Your task to perform on an android device: delete location history Image 0: 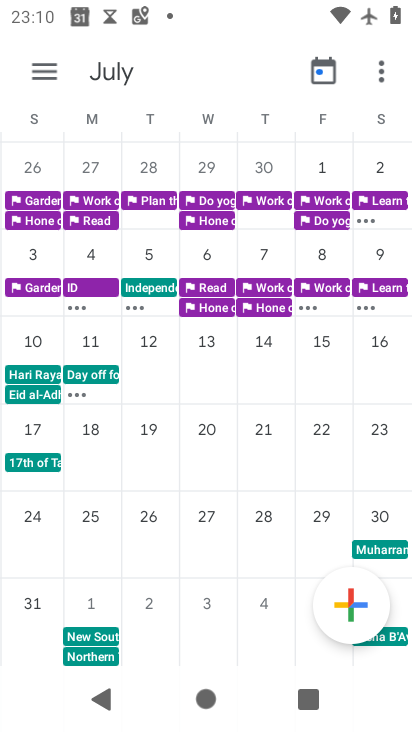
Step 0: press home button
Your task to perform on an android device: delete location history Image 1: 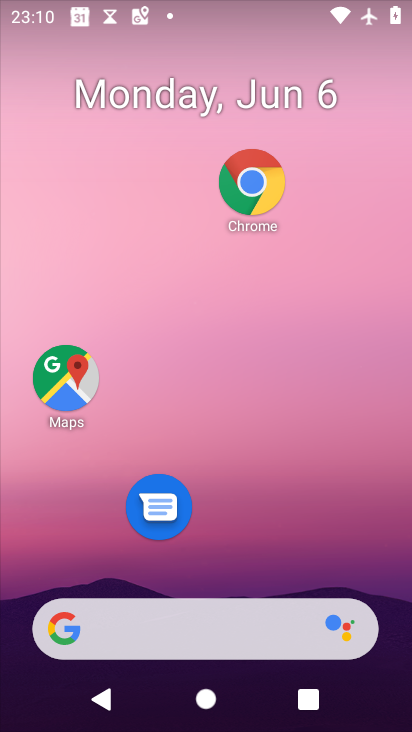
Step 1: click (249, 178)
Your task to perform on an android device: delete location history Image 2: 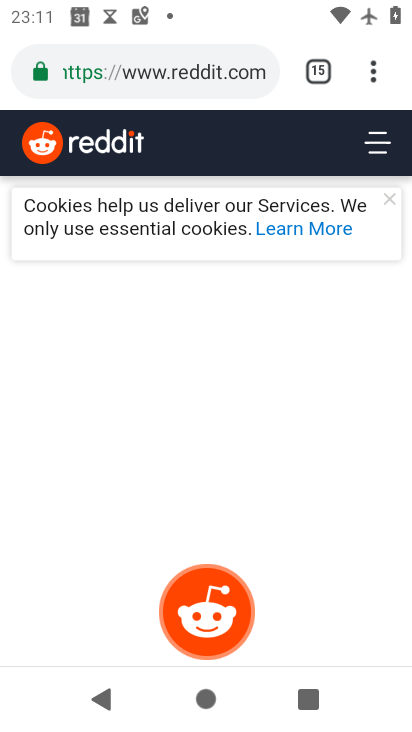
Step 2: press home button
Your task to perform on an android device: delete location history Image 3: 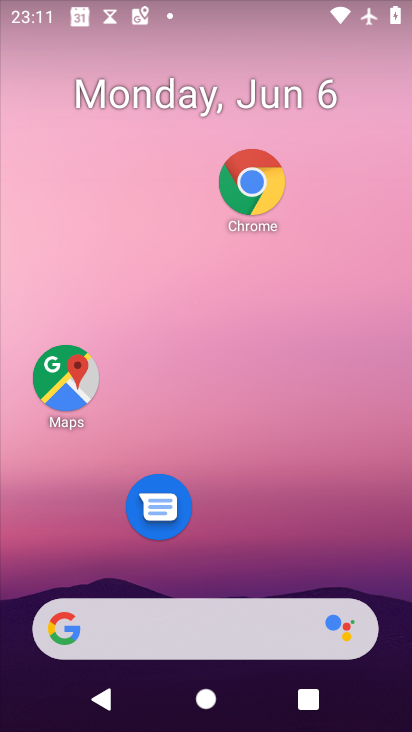
Step 3: click (72, 387)
Your task to perform on an android device: delete location history Image 4: 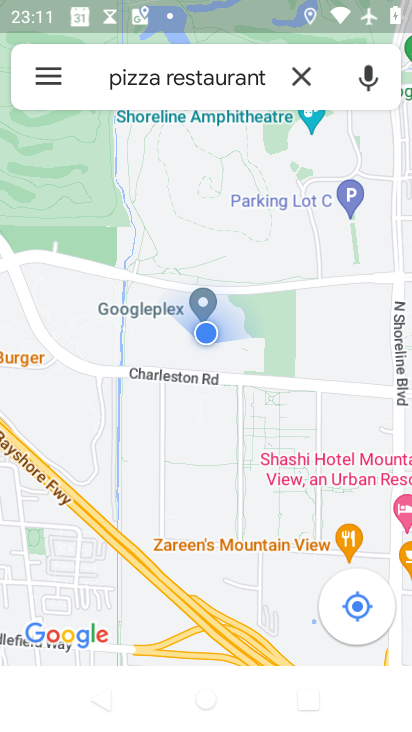
Step 4: click (301, 76)
Your task to perform on an android device: delete location history Image 5: 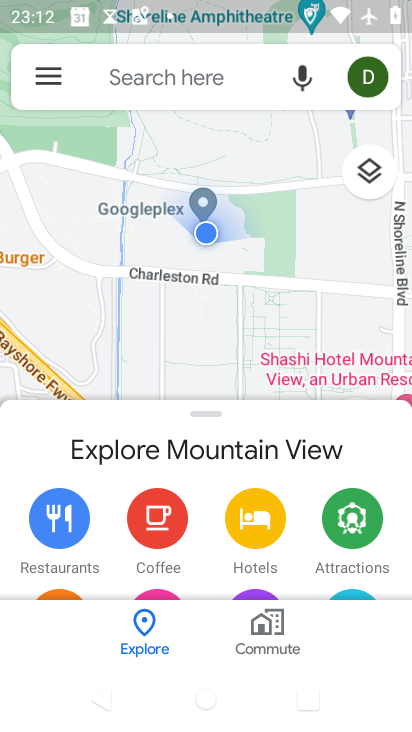
Step 5: click (46, 77)
Your task to perform on an android device: delete location history Image 6: 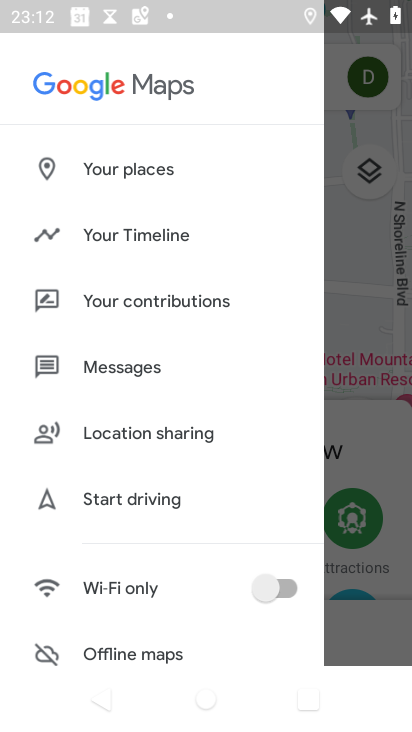
Step 6: click (127, 210)
Your task to perform on an android device: delete location history Image 7: 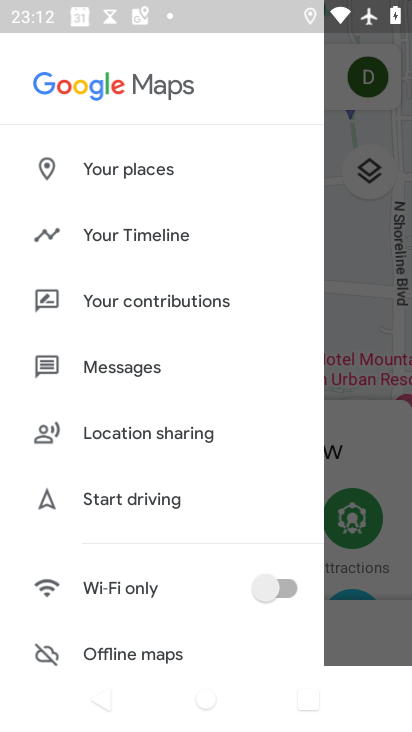
Step 7: click (180, 230)
Your task to perform on an android device: delete location history Image 8: 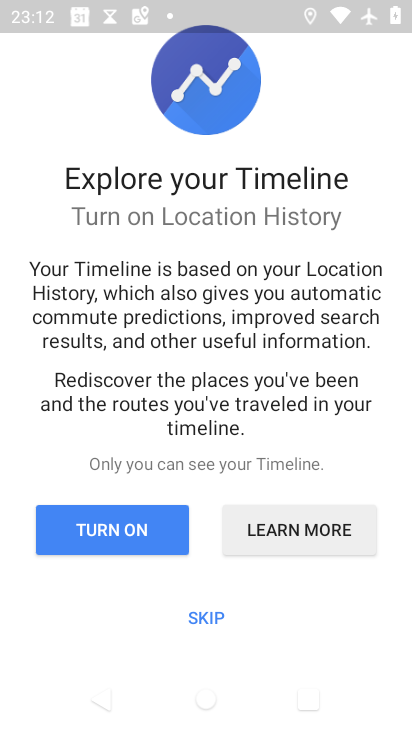
Step 8: click (196, 617)
Your task to perform on an android device: delete location history Image 9: 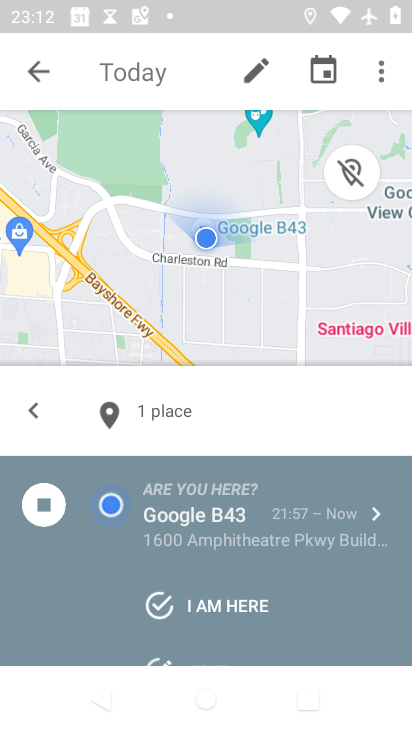
Step 9: click (380, 71)
Your task to perform on an android device: delete location history Image 10: 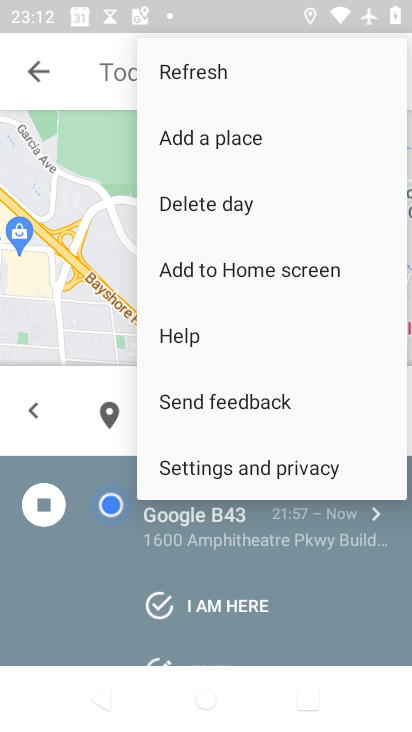
Step 10: click (219, 462)
Your task to perform on an android device: delete location history Image 11: 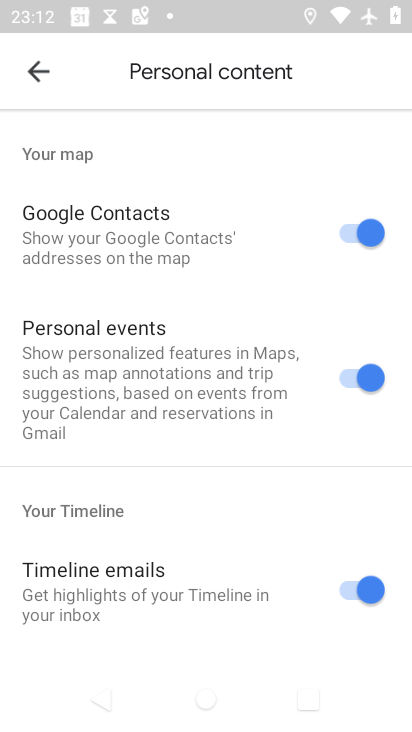
Step 11: drag from (142, 539) to (204, 209)
Your task to perform on an android device: delete location history Image 12: 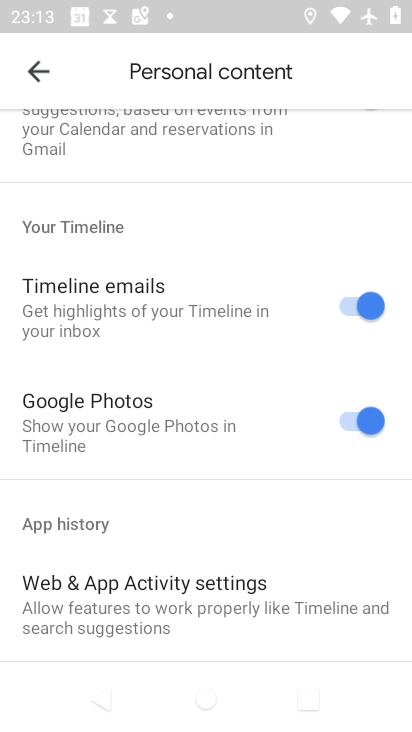
Step 12: drag from (179, 548) to (228, 228)
Your task to perform on an android device: delete location history Image 13: 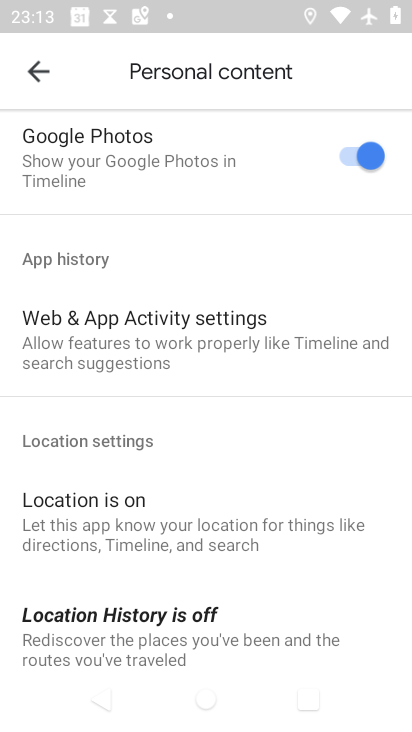
Step 13: drag from (266, 439) to (351, 345)
Your task to perform on an android device: delete location history Image 14: 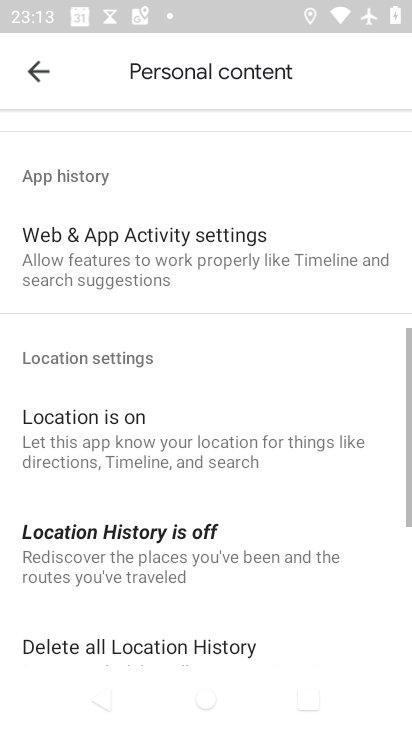
Step 14: drag from (206, 586) to (222, 298)
Your task to perform on an android device: delete location history Image 15: 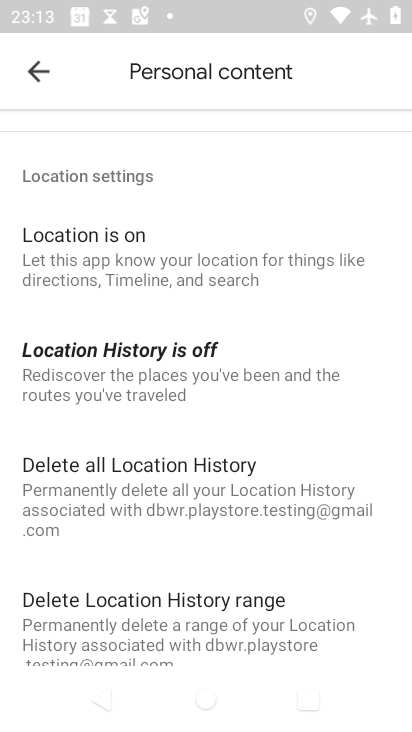
Step 15: click (160, 482)
Your task to perform on an android device: delete location history Image 16: 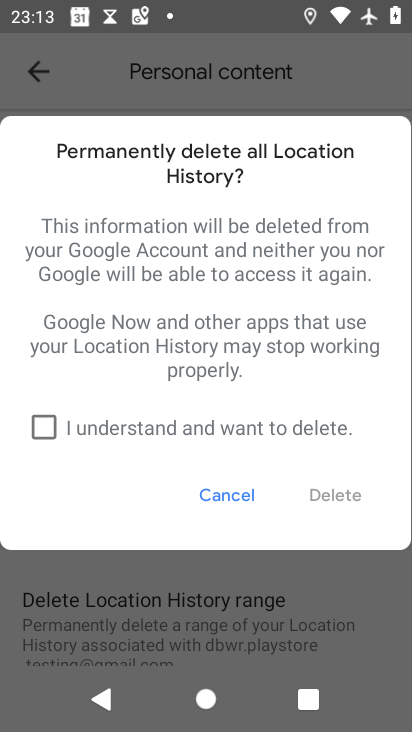
Step 16: click (31, 424)
Your task to perform on an android device: delete location history Image 17: 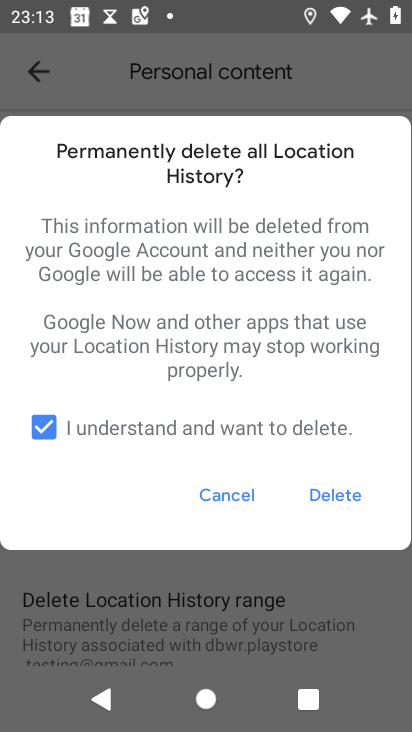
Step 17: click (320, 490)
Your task to perform on an android device: delete location history Image 18: 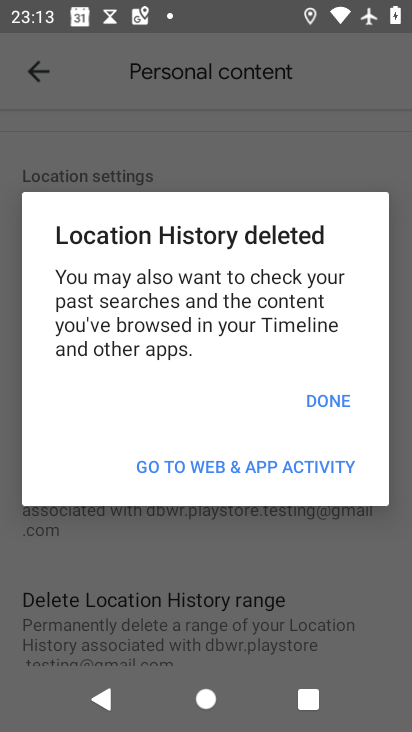
Step 18: click (313, 395)
Your task to perform on an android device: delete location history Image 19: 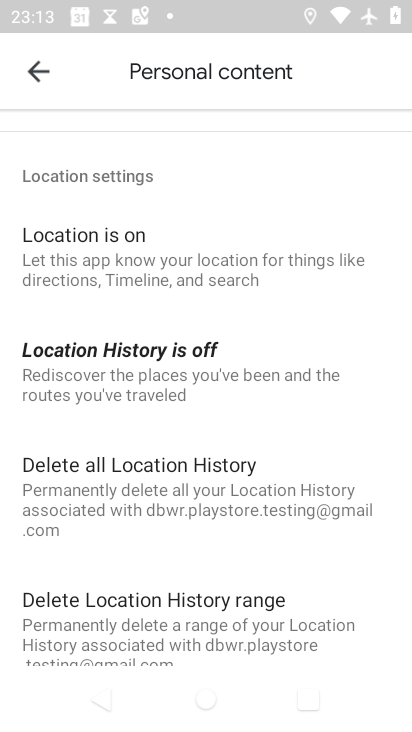
Step 19: task complete